Your task to perform on an android device: check storage Image 0: 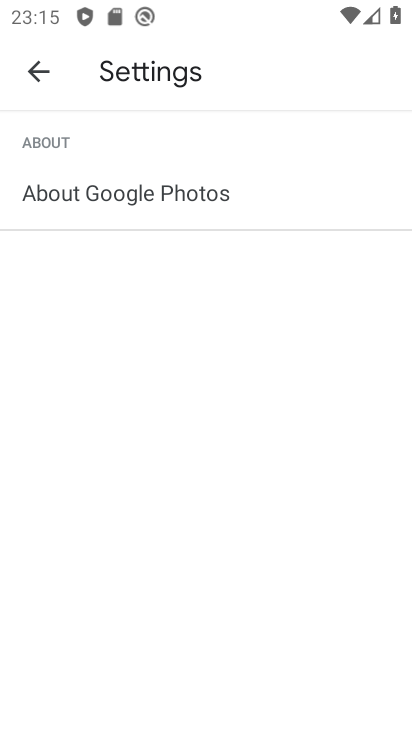
Step 0: press home button
Your task to perform on an android device: check storage Image 1: 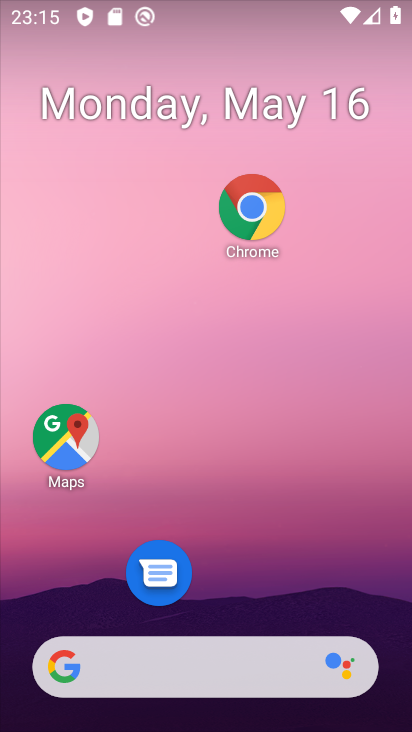
Step 1: click (349, 140)
Your task to perform on an android device: check storage Image 2: 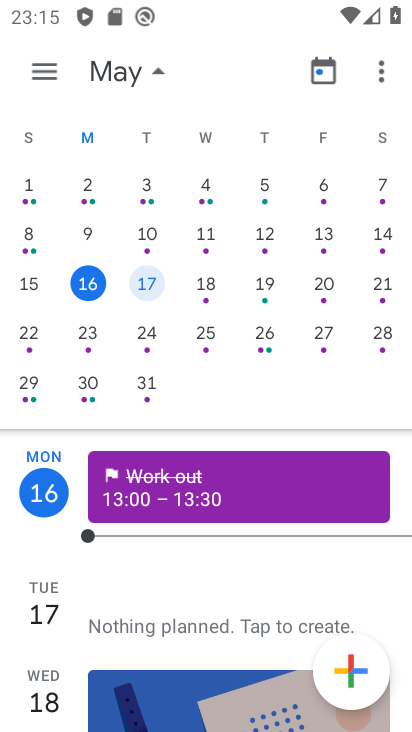
Step 2: press home button
Your task to perform on an android device: check storage Image 3: 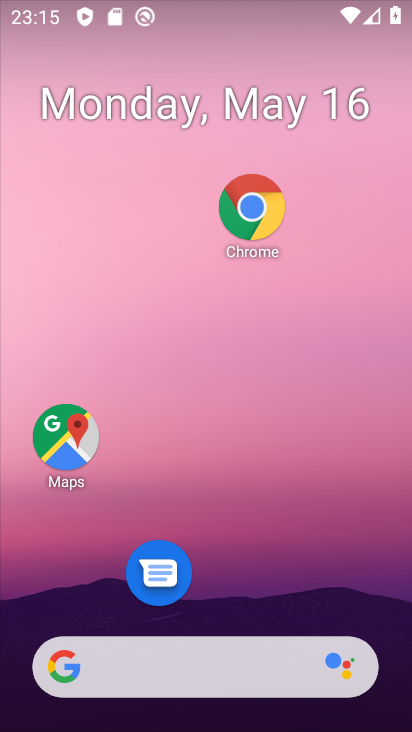
Step 3: drag from (267, 622) to (287, 43)
Your task to perform on an android device: check storage Image 4: 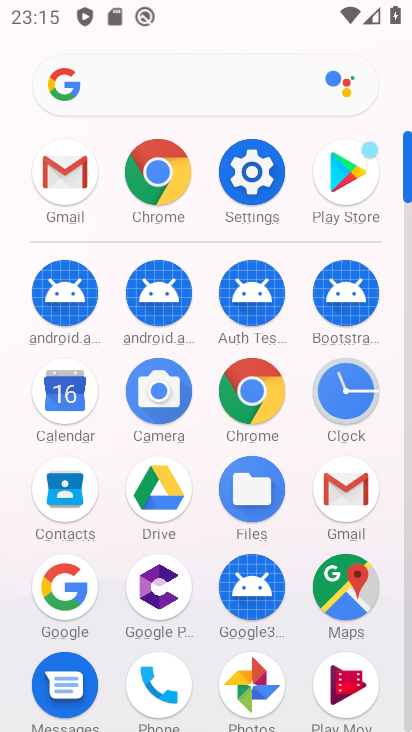
Step 4: click (266, 169)
Your task to perform on an android device: check storage Image 5: 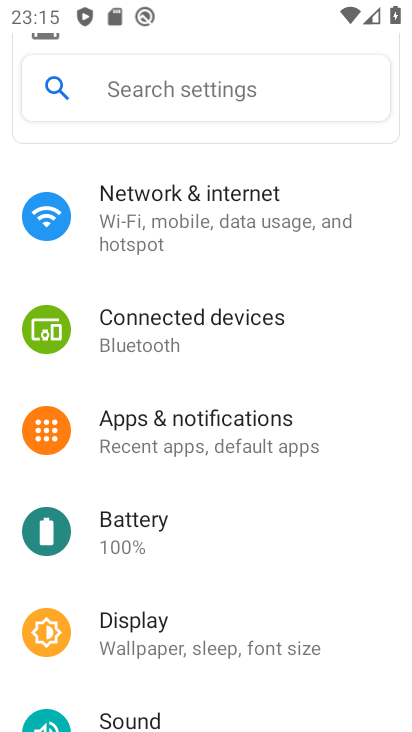
Step 5: drag from (275, 623) to (298, 216)
Your task to perform on an android device: check storage Image 6: 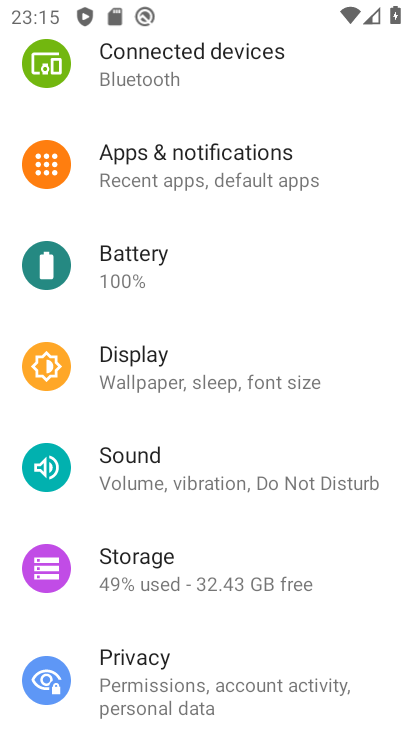
Step 6: click (209, 578)
Your task to perform on an android device: check storage Image 7: 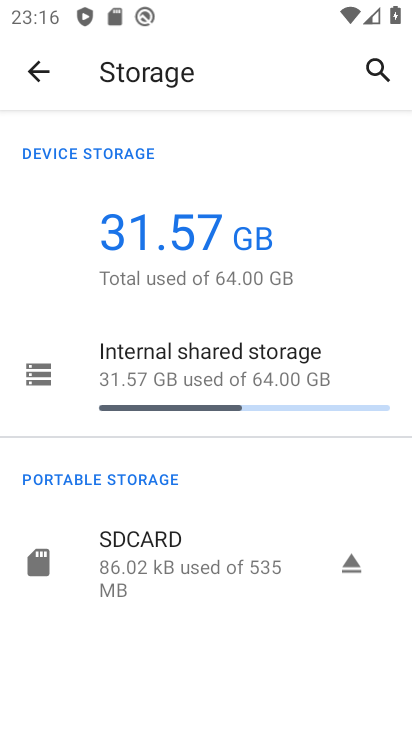
Step 7: task complete